Your task to perform on an android device: Check the news Image 0: 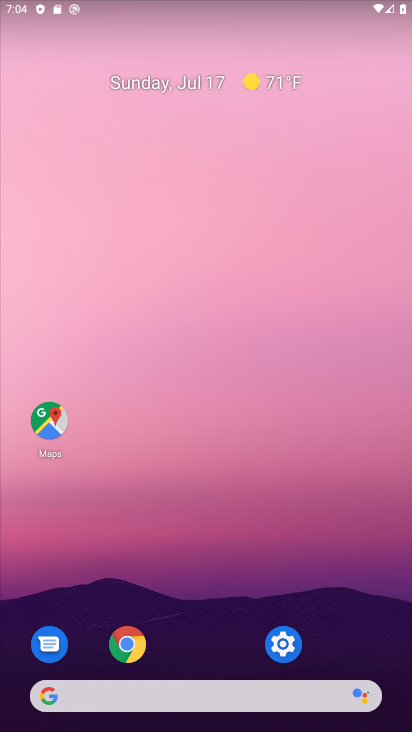
Step 0: press home button
Your task to perform on an android device: Check the news Image 1: 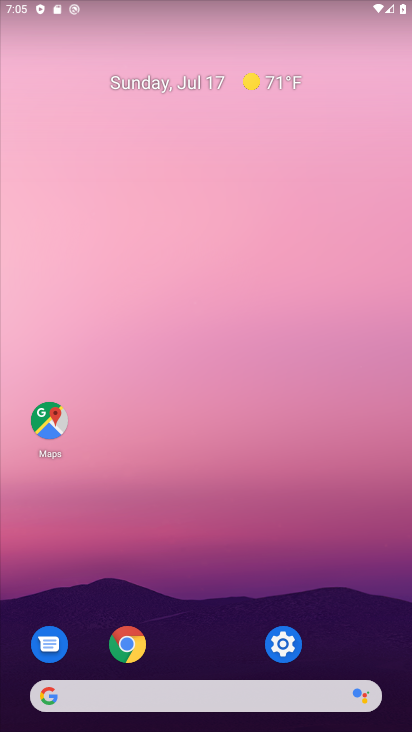
Step 1: click (103, 692)
Your task to perform on an android device: Check the news Image 2: 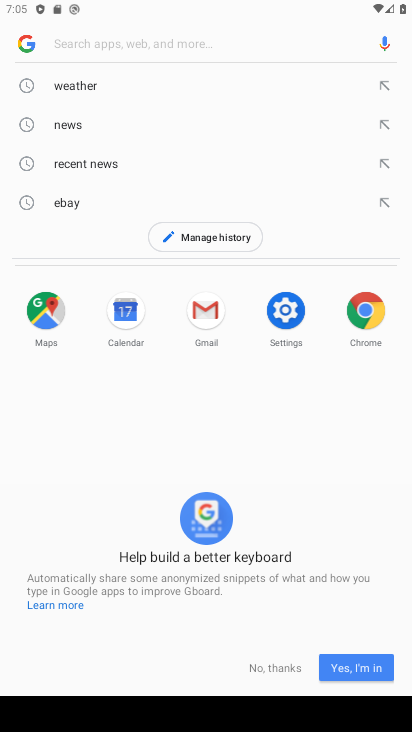
Step 2: click (99, 130)
Your task to perform on an android device: Check the news Image 3: 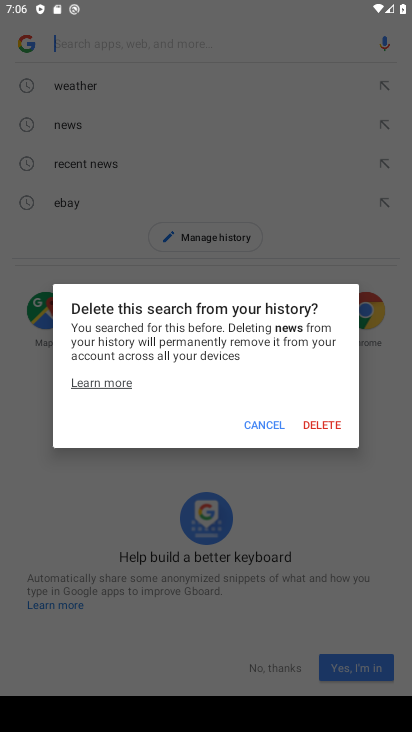
Step 3: click (245, 430)
Your task to perform on an android device: Check the news Image 4: 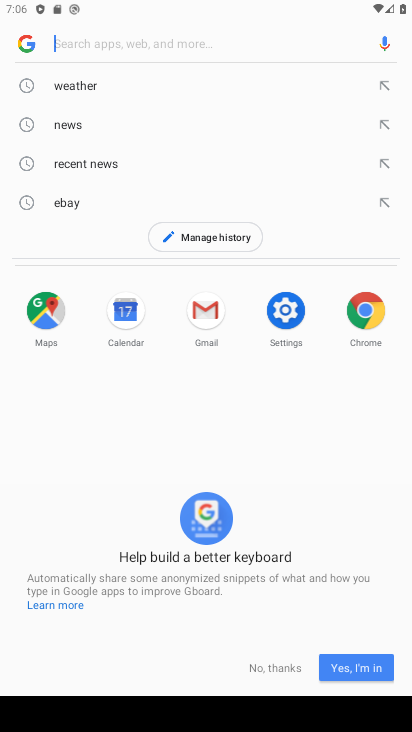
Step 4: click (80, 137)
Your task to perform on an android device: Check the news Image 5: 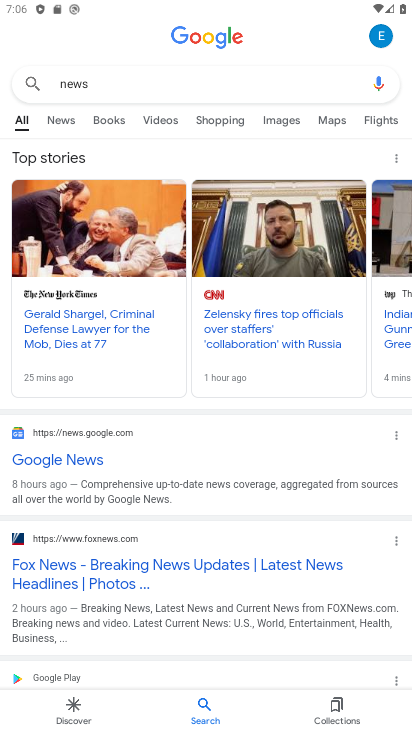
Step 5: task complete